Your task to perform on an android device: Search for Italian restaurants on Maps Image 0: 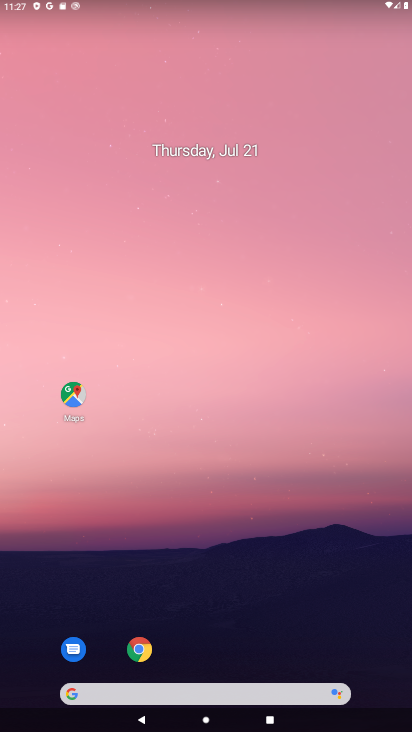
Step 0: drag from (217, 582) to (217, 451)
Your task to perform on an android device: Search for Italian restaurants on Maps Image 1: 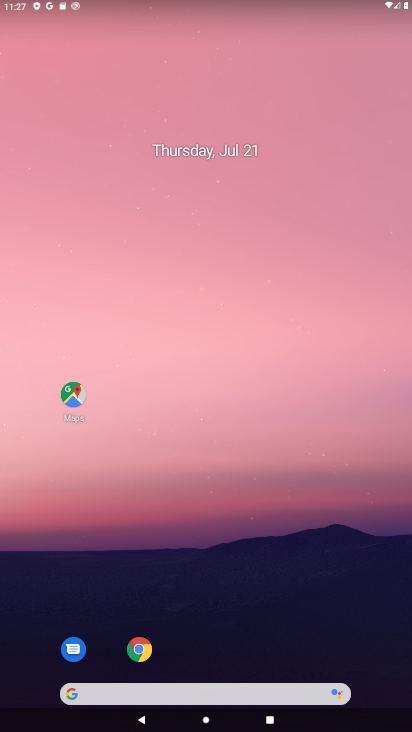
Step 1: drag from (224, 654) to (228, 133)
Your task to perform on an android device: Search for Italian restaurants on Maps Image 2: 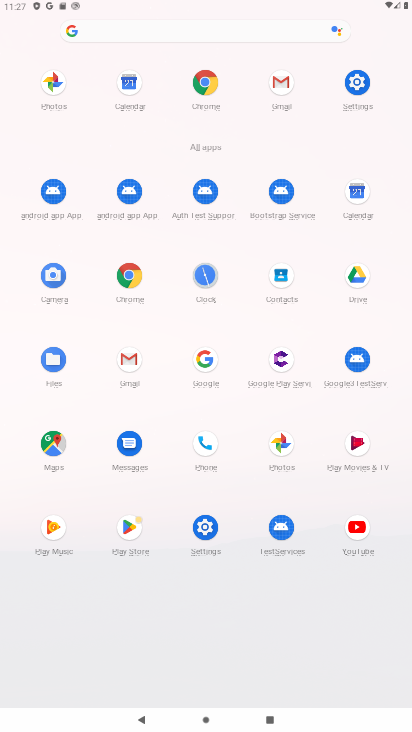
Step 2: click (49, 444)
Your task to perform on an android device: Search for Italian restaurants on Maps Image 3: 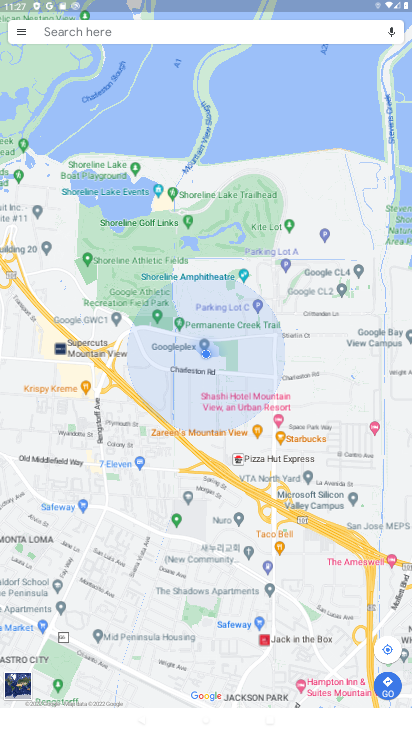
Step 3: click (192, 29)
Your task to perform on an android device: Search for Italian restaurants on Maps Image 4: 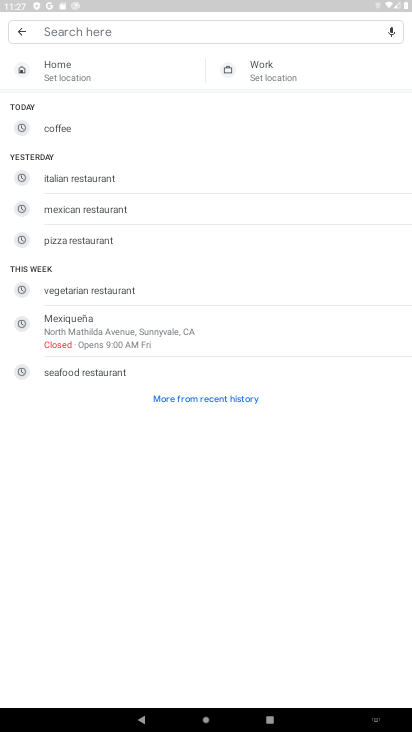
Step 4: type "italian restaurants"
Your task to perform on an android device: Search for Italian restaurants on Maps Image 5: 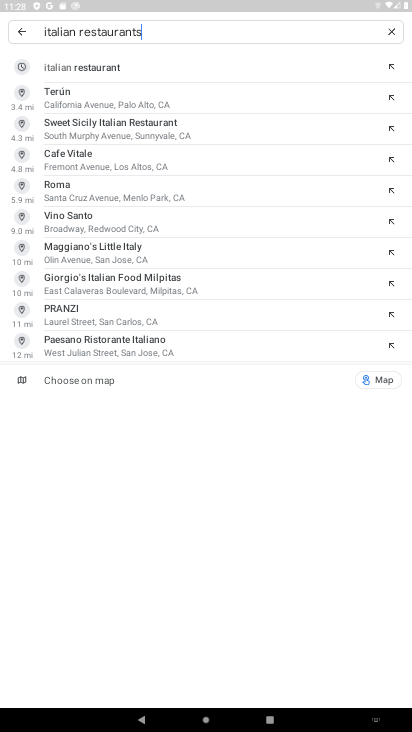
Step 5: click (86, 70)
Your task to perform on an android device: Search for Italian restaurants on Maps Image 6: 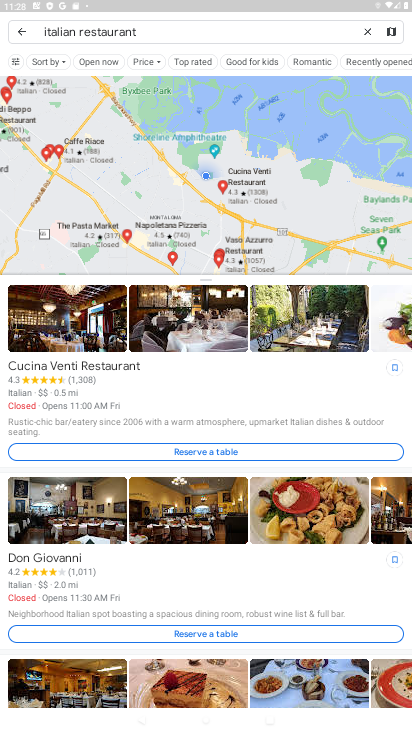
Step 6: task complete